Your task to perform on an android device: Check the news Image 0: 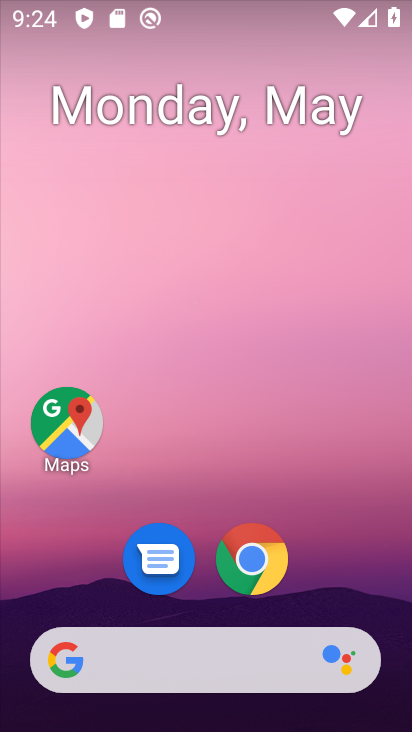
Step 0: drag from (3, 340) to (373, 284)
Your task to perform on an android device: Check the news Image 1: 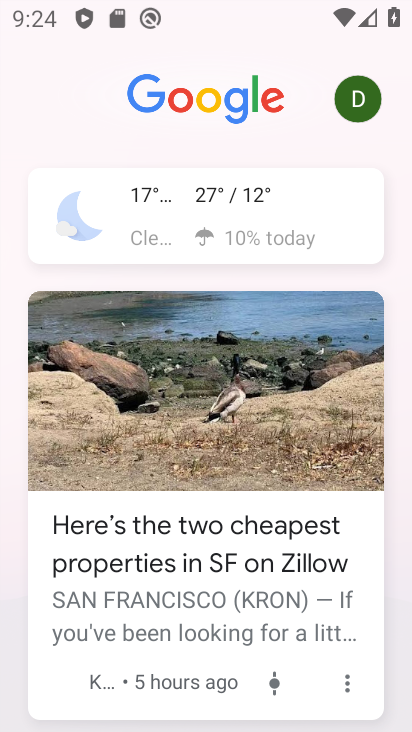
Step 1: task complete